Your task to perform on an android device: Go to network settings Image 0: 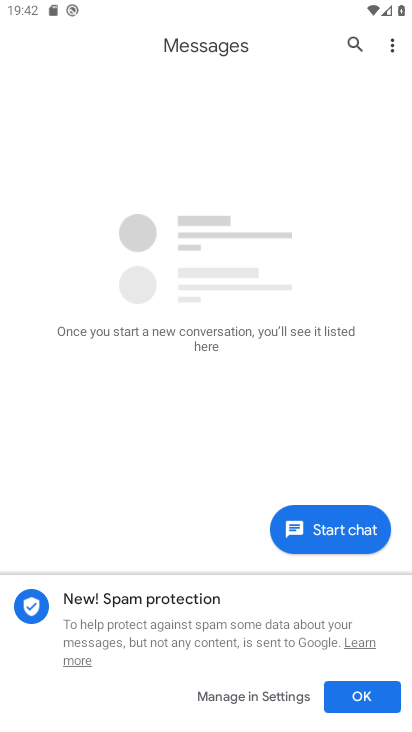
Step 0: press home button
Your task to perform on an android device: Go to network settings Image 1: 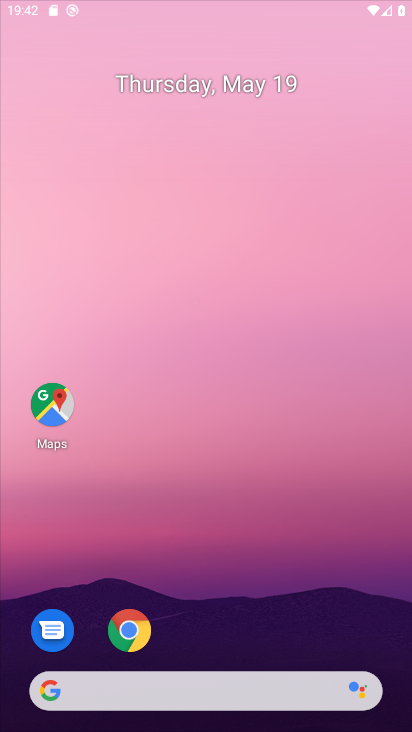
Step 1: drag from (7, 590) to (290, 134)
Your task to perform on an android device: Go to network settings Image 2: 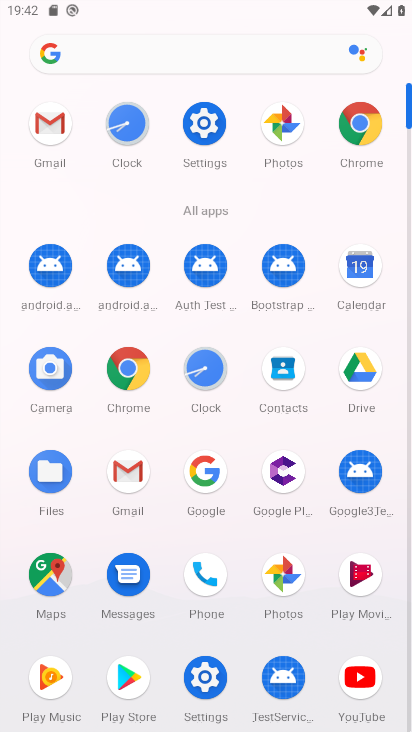
Step 2: click (200, 126)
Your task to perform on an android device: Go to network settings Image 3: 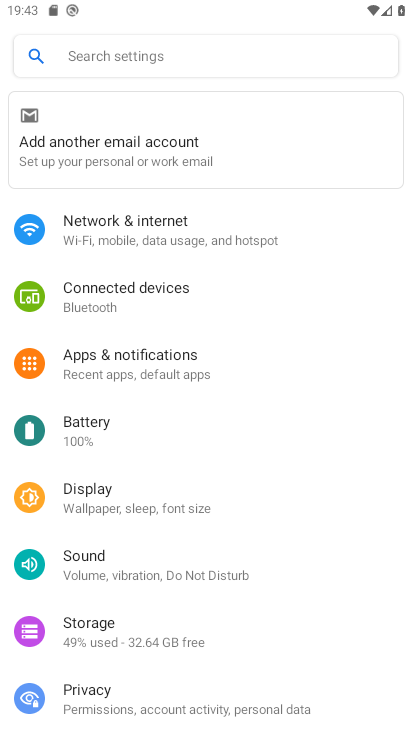
Step 3: click (69, 238)
Your task to perform on an android device: Go to network settings Image 4: 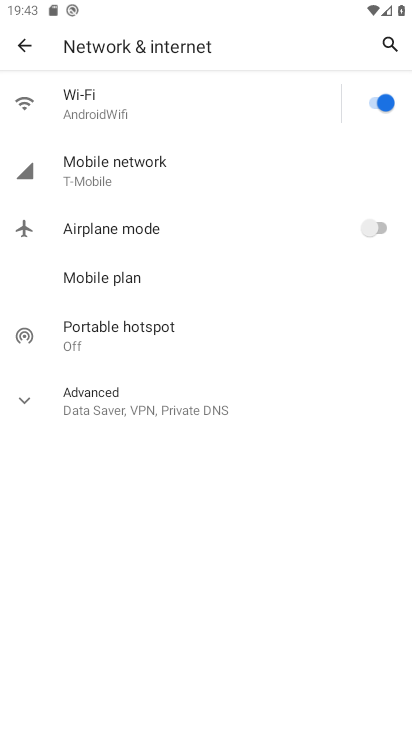
Step 4: click (145, 161)
Your task to perform on an android device: Go to network settings Image 5: 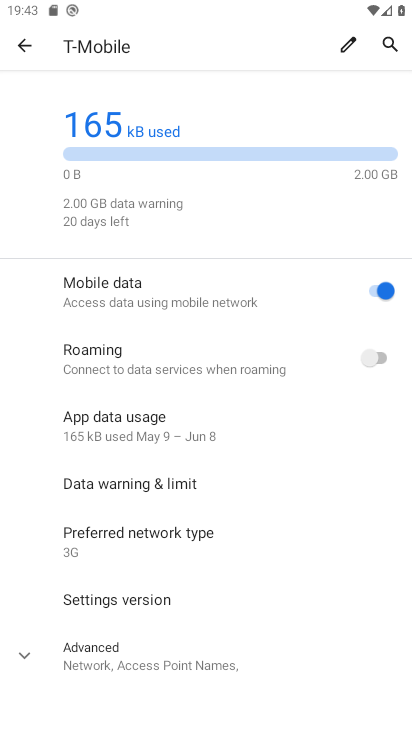
Step 5: task complete